Your task to perform on an android device: Search for "apple airpods pro" on bestbuy, select the first entry, and add it to the cart. Image 0: 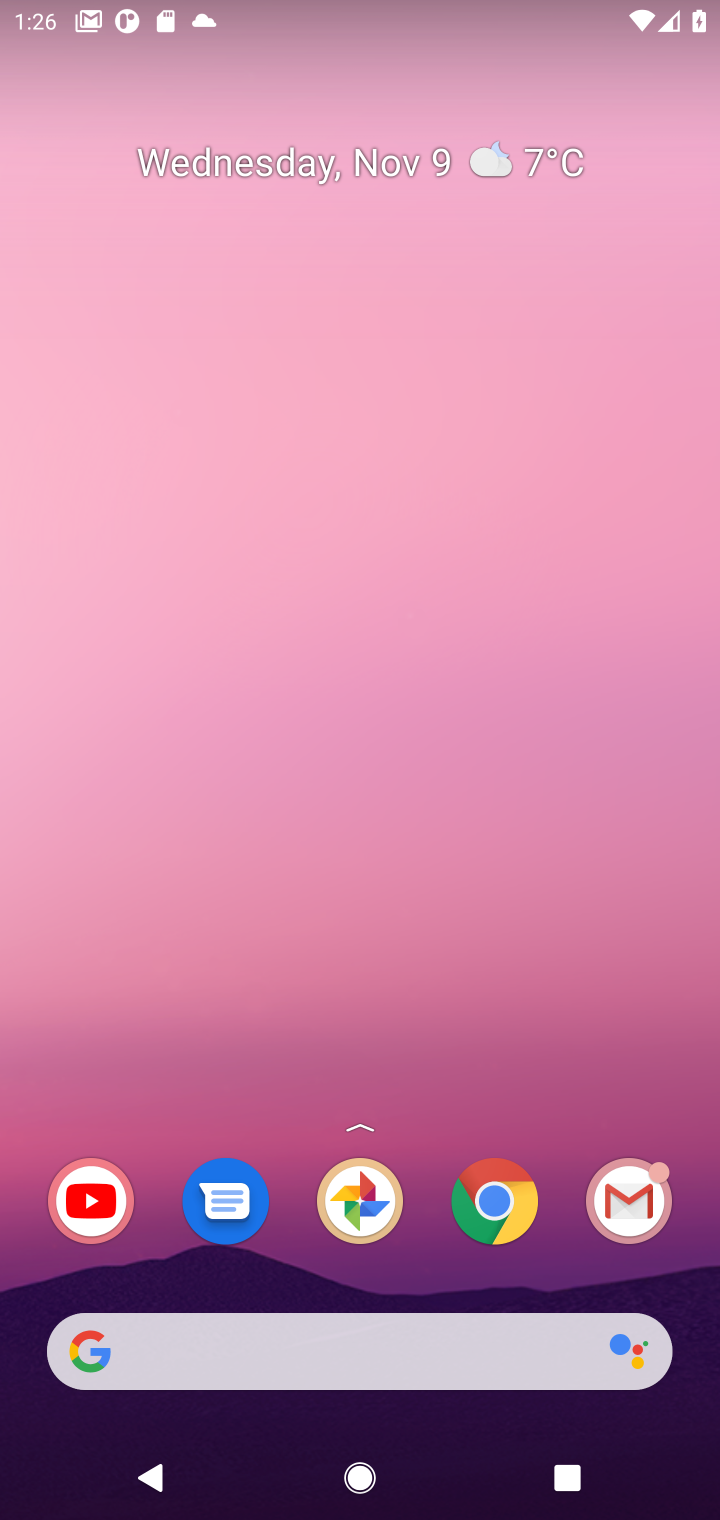
Step 0: click (413, 1348)
Your task to perform on an android device: Search for "apple airpods pro" on bestbuy, select the first entry, and add it to the cart. Image 1: 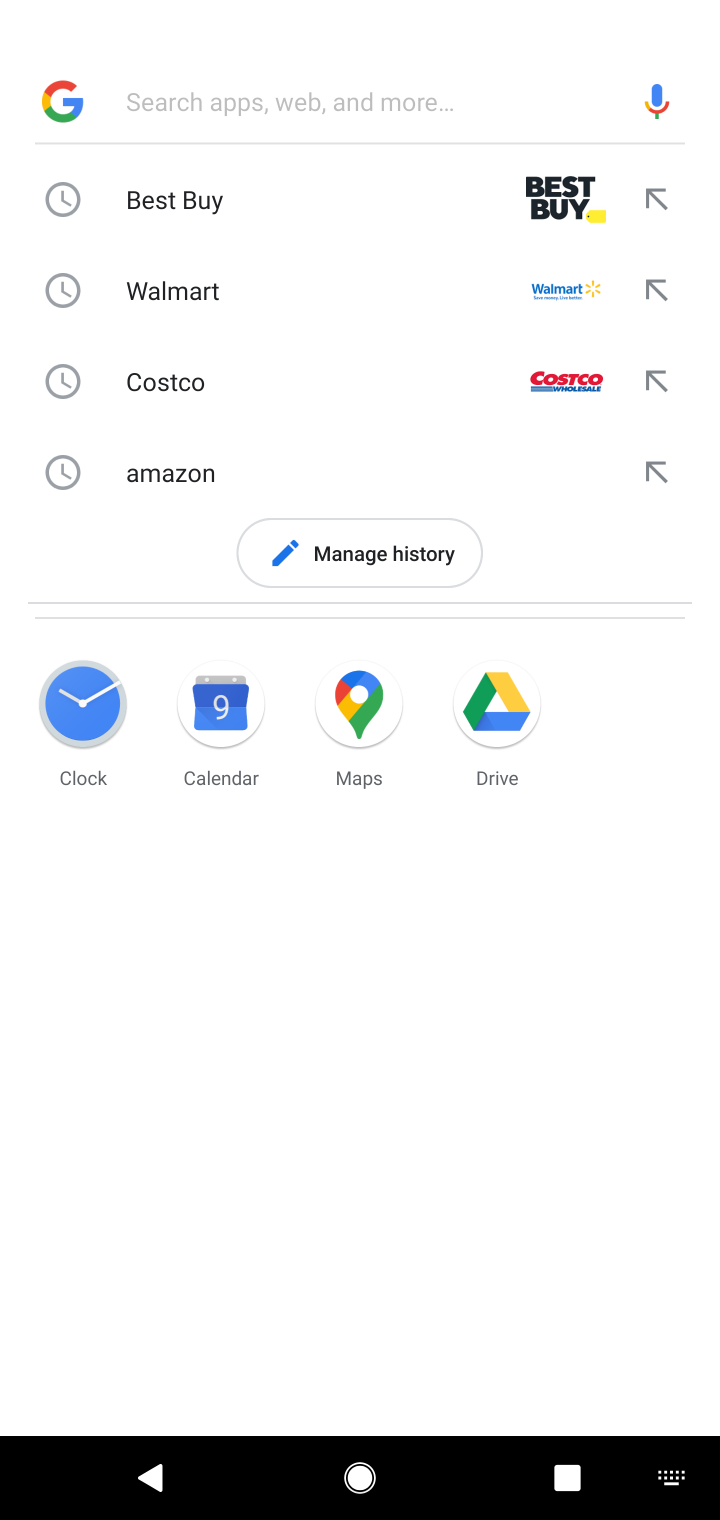
Step 1: type "bestbuy"
Your task to perform on an android device: Search for "apple airpods pro" on bestbuy, select the first entry, and add it to the cart. Image 2: 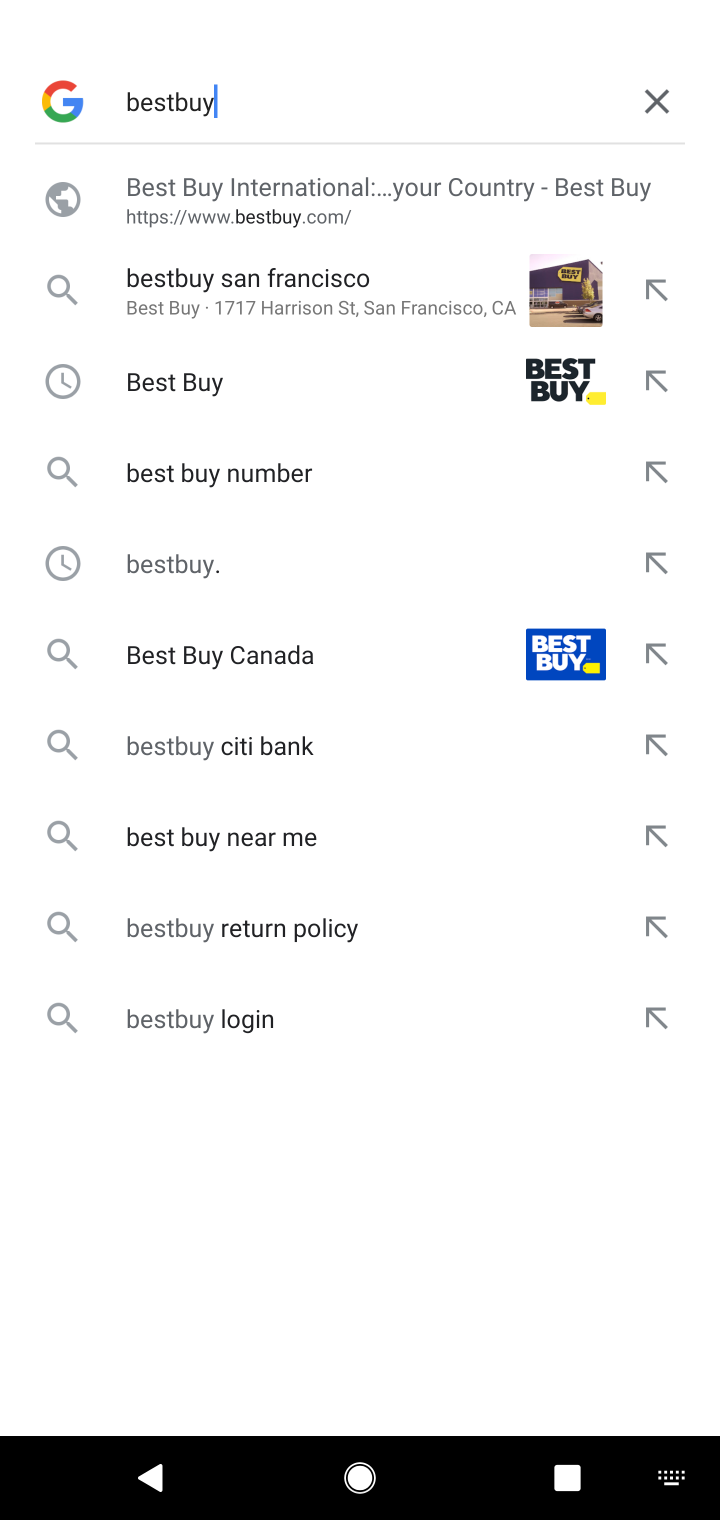
Step 2: click (342, 377)
Your task to perform on an android device: Search for "apple airpods pro" on bestbuy, select the first entry, and add it to the cart. Image 3: 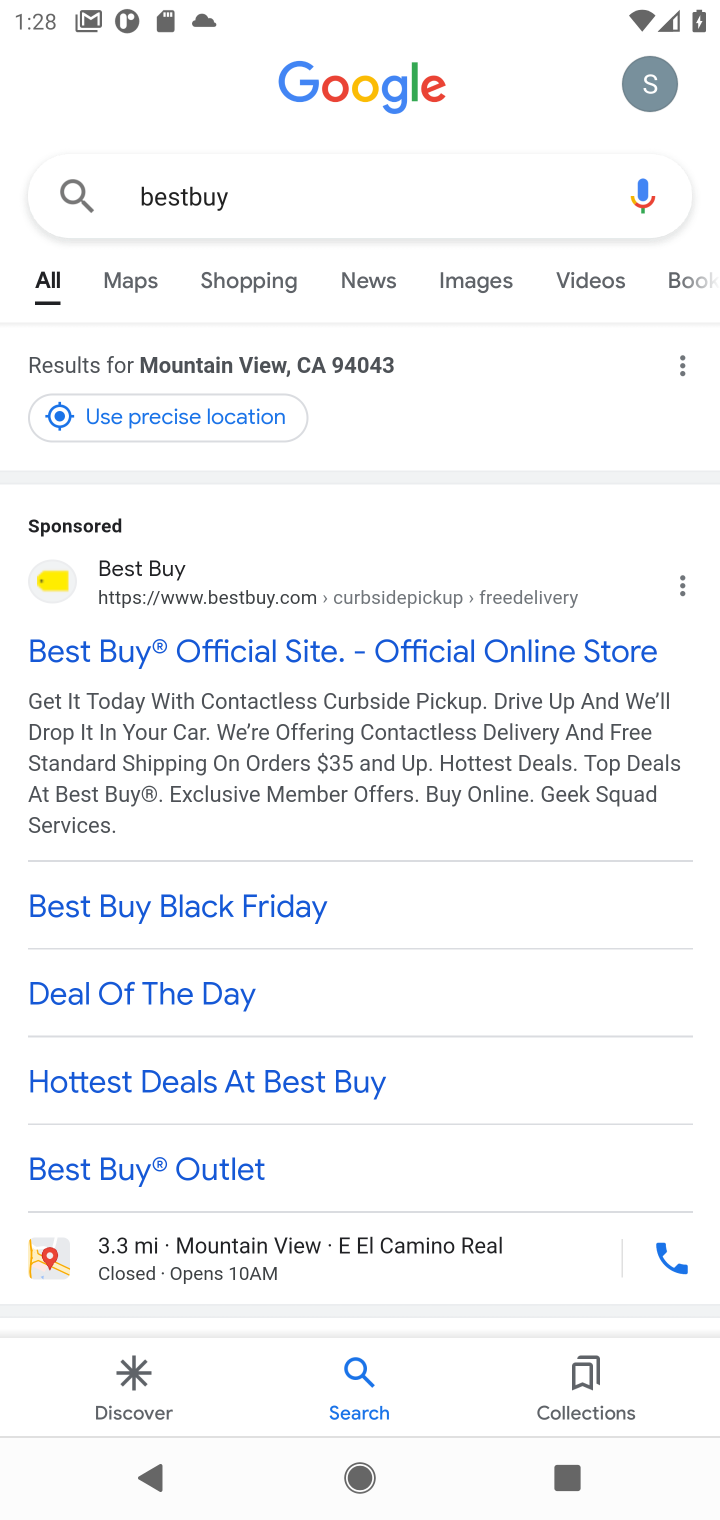
Step 3: click (142, 592)
Your task to perform on an android device: Search for "apple airpods pro" on bestbuy, select the first entry, and add it to the cart. Image 4: 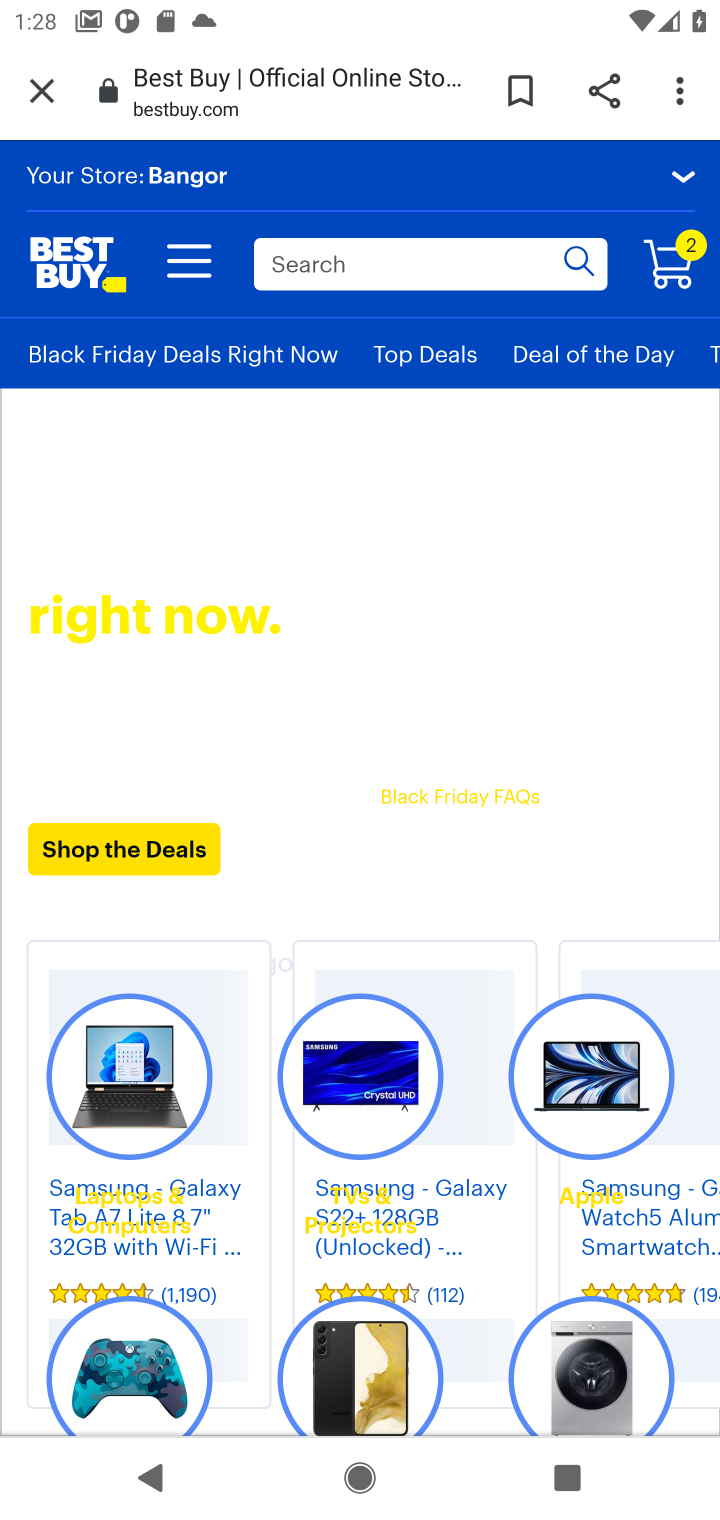
Step 4: click (380, 267)
Your task to perform on an android device: Search for "apple airpods pro" on bestbuy, select the first entry, and add it to the cart. Image 5: 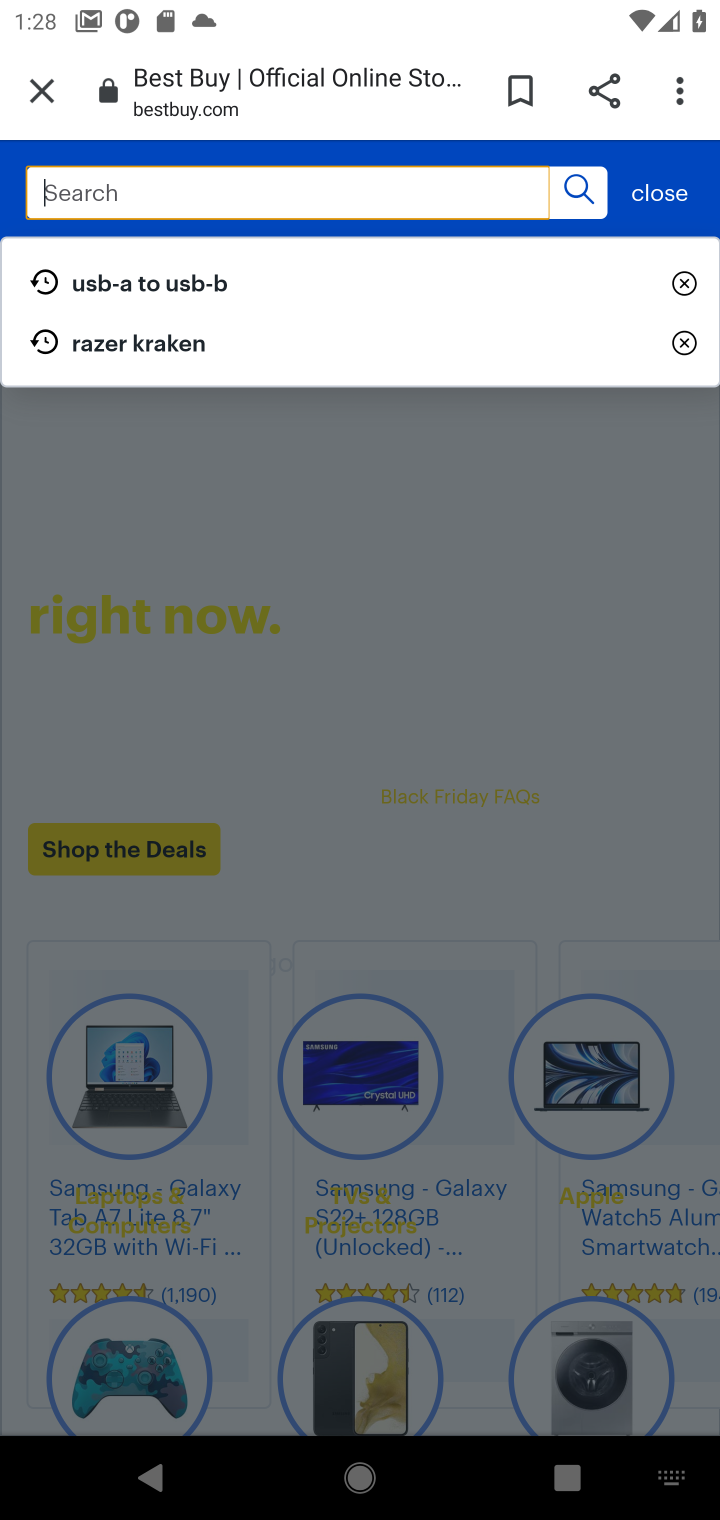
Step 5: type "apple airpods pro"
Your task to perform on an android device: Search for "apple airpods pro" on bestbuy, select the first entry, and add it to the cart. Image 6: 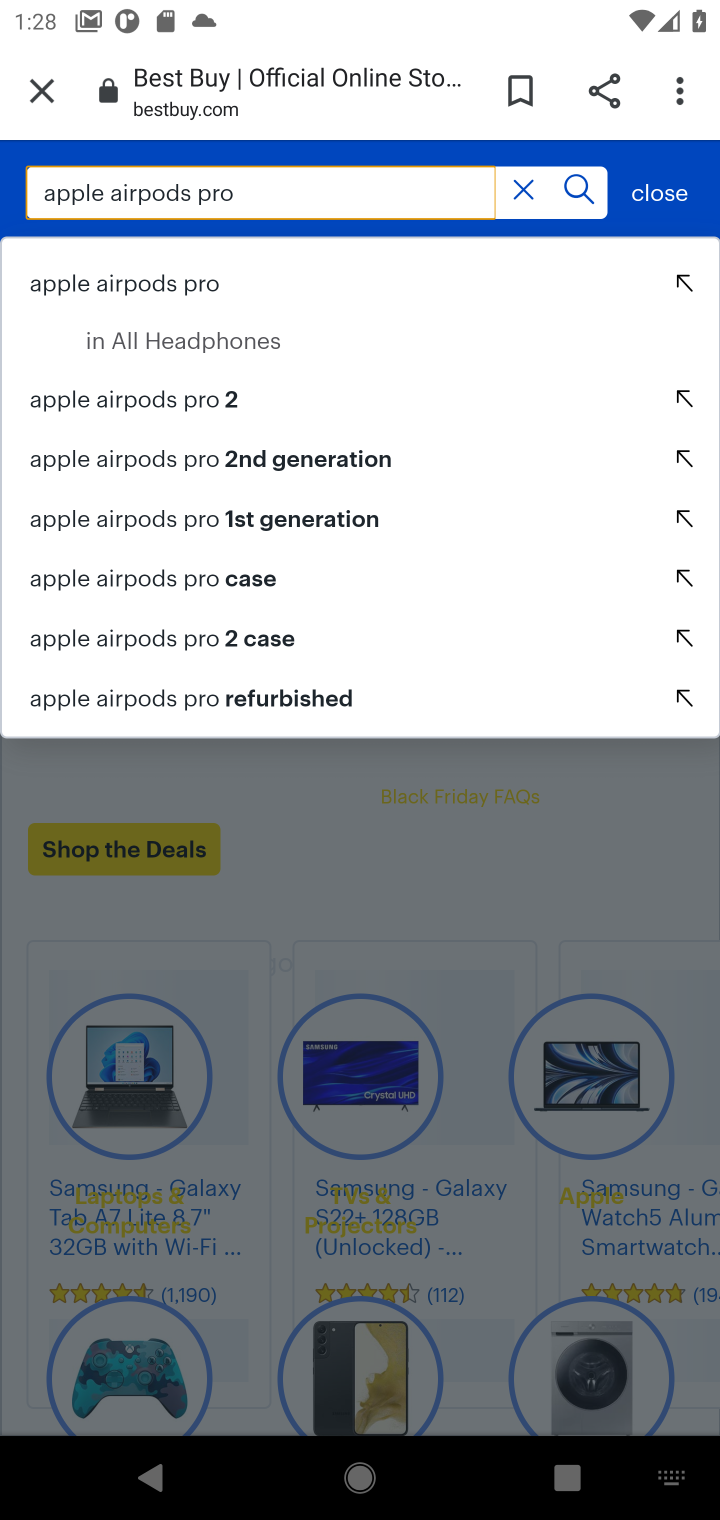
Step 6: click (188, 294)
Your task to perform on an android device: Search for "apple airpods pro" on bestbuy, select the first entry, and add it to the cart. Image 7: 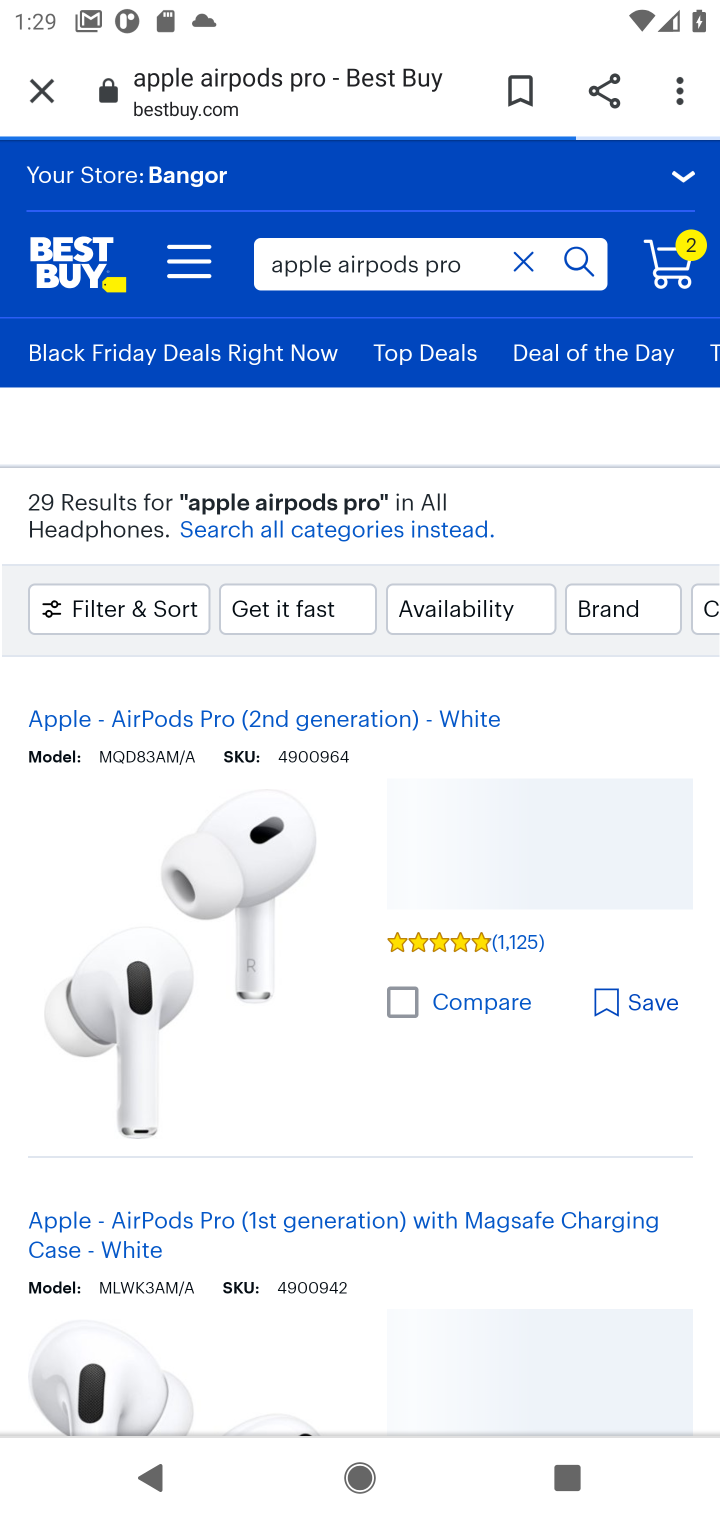
Step 7: click (217, 903)
Your task to perform on an android device: Search for "apple airpods pro" on bestbuy, select the first entry, and add it to the cart. Image 8: 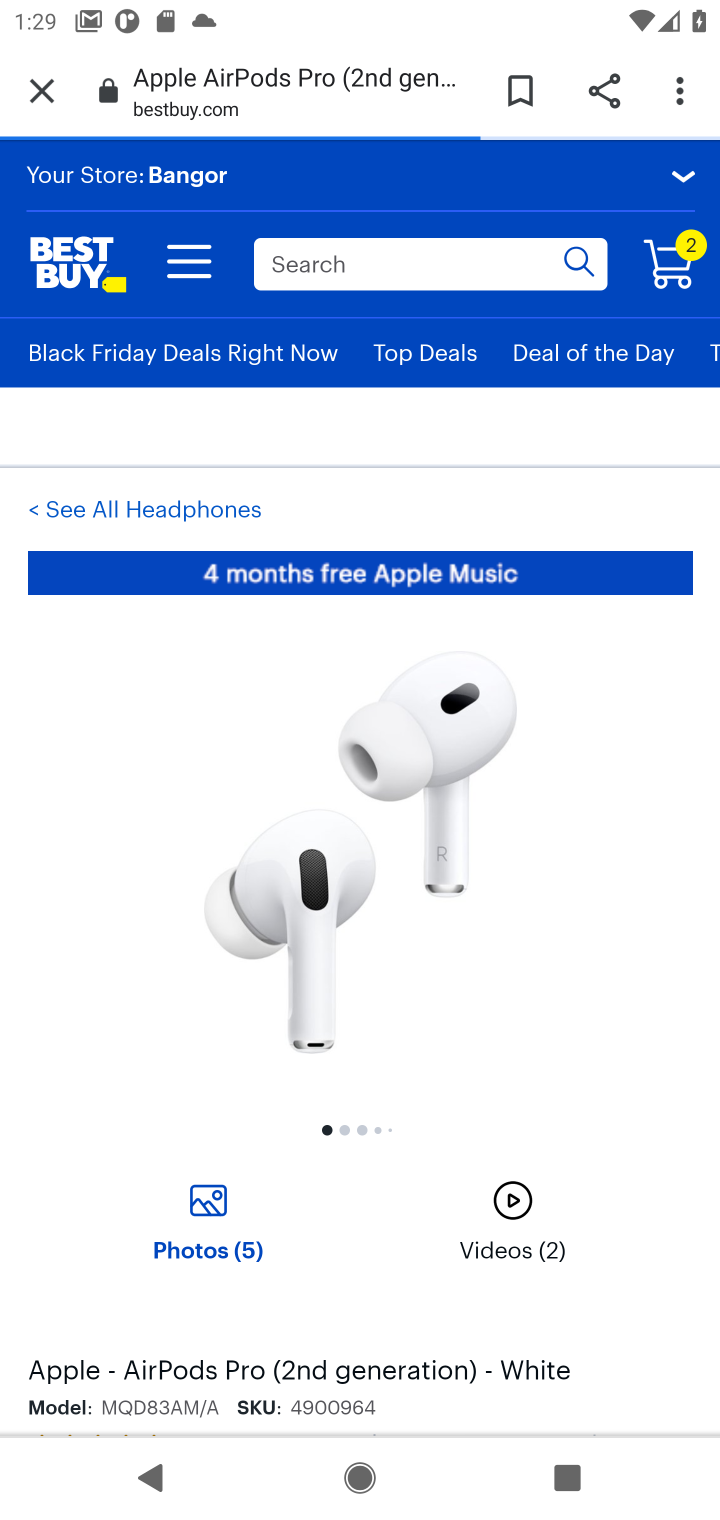
Step 8: drag from (354, 1155) to (371, 763)
Your task to perform on an android device: Search for "apple airpods pro" on bestbuy, select the first entry, and add it to the cart. Image 9: 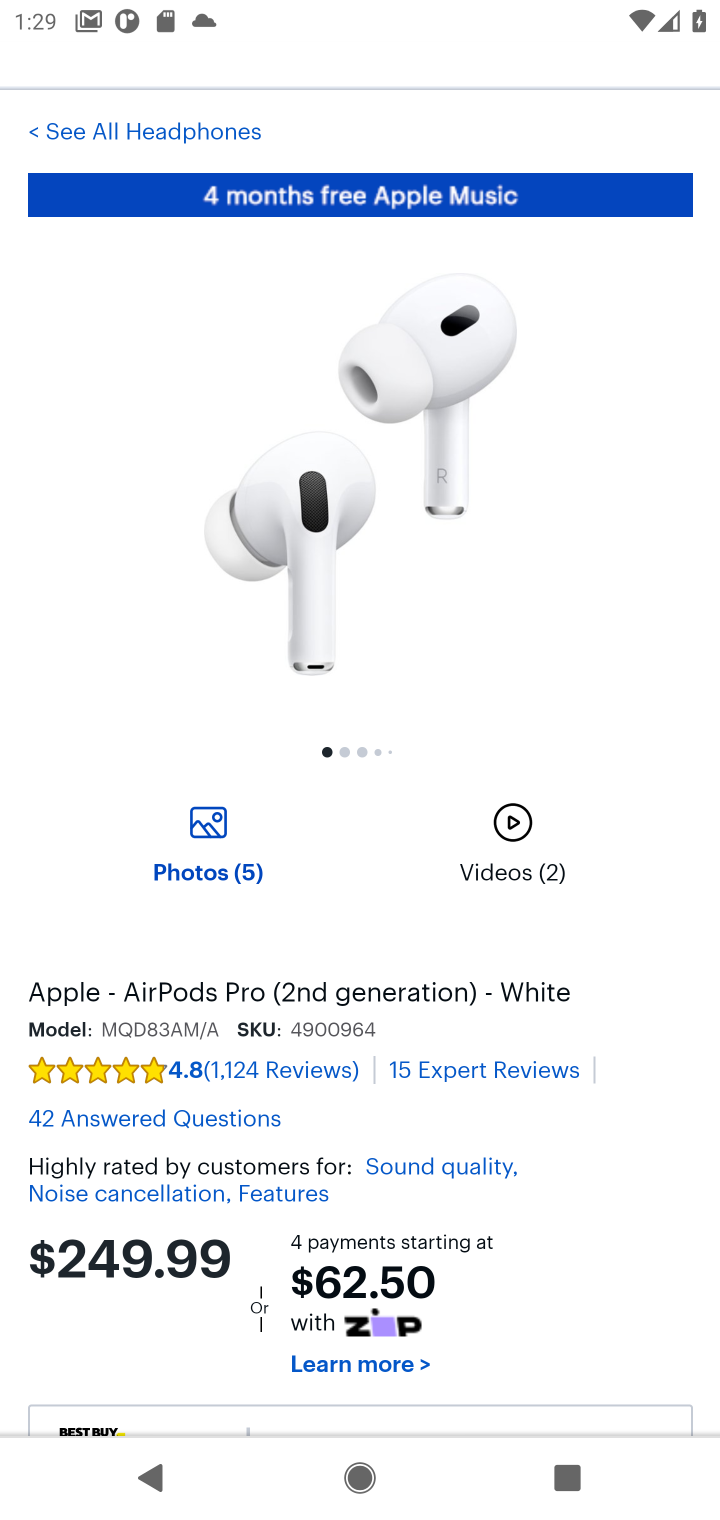
Step 9: drag from (325, 1076) to (324, 795)
Your task to perform on an android device: Search for "apple airpods pro" on bestbuy, select the first entry, and add it to the cart. Image 10: 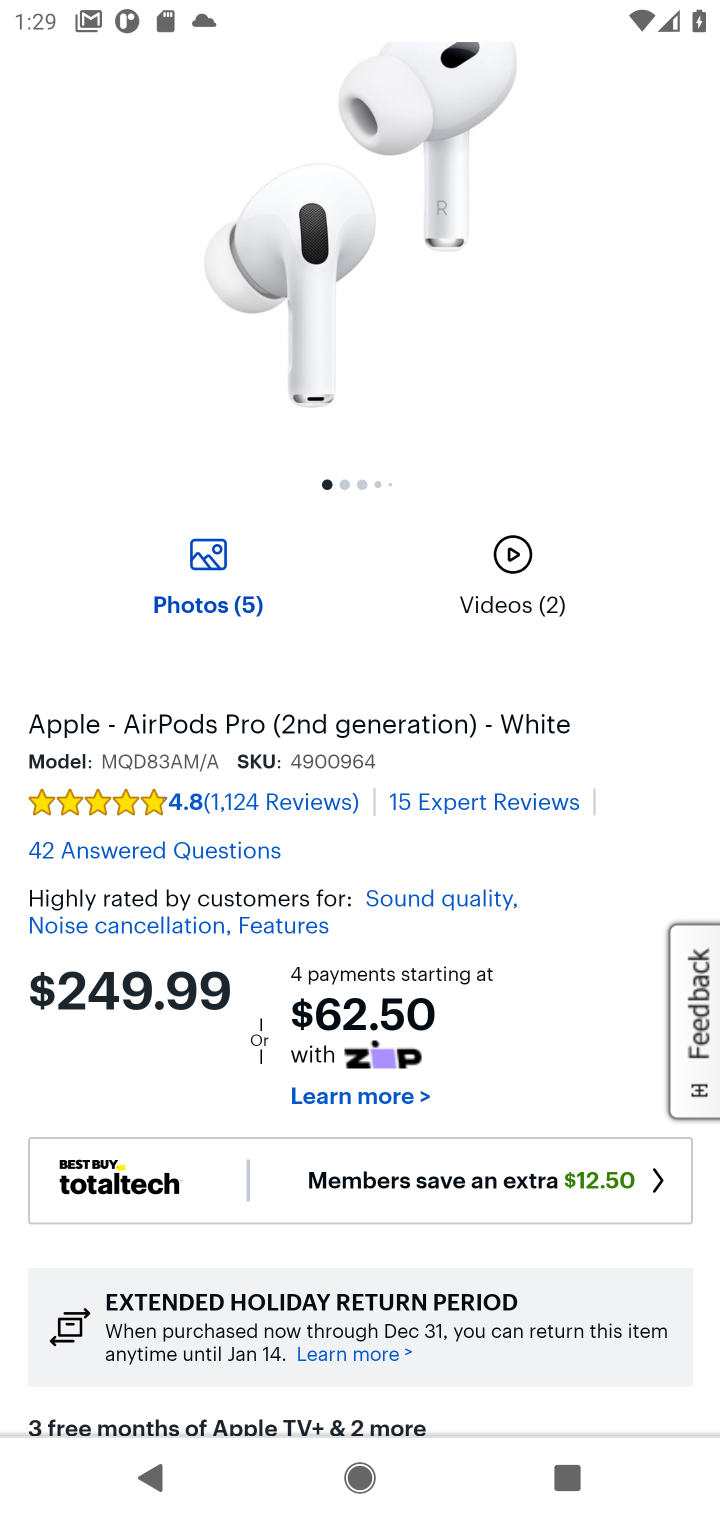
Step 10: drag from (525, 983) to (448, 596)
Your task to perform on an android device: Search for "apple airpods pro" on bestbuy, select the first entry, and add it to the cart. Image 11: 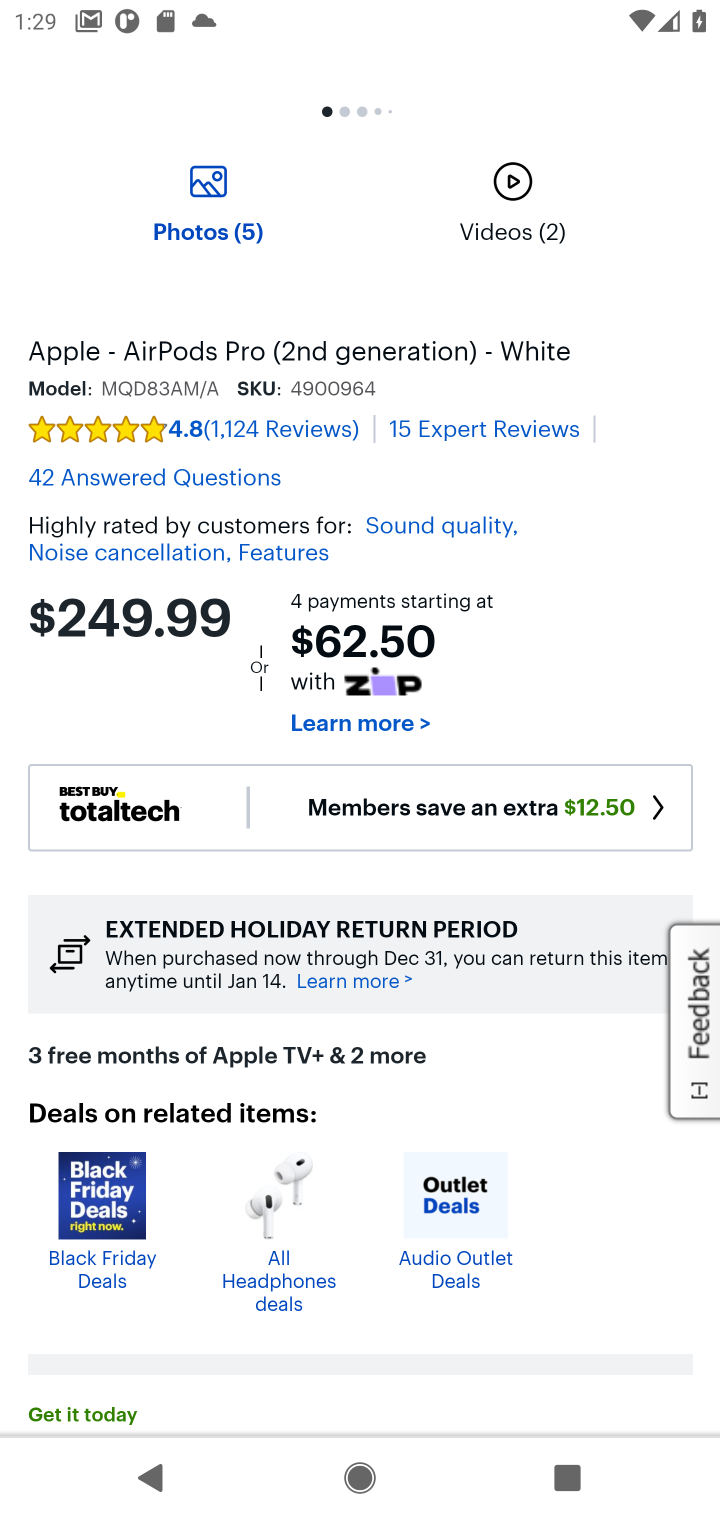
Step 11: drag from (512, 681) to (502, 382)
Your task to perform on an android device: Search for "apple airpods pro" on bestbuy, select the first entry, and add it to the cart. Image 12: 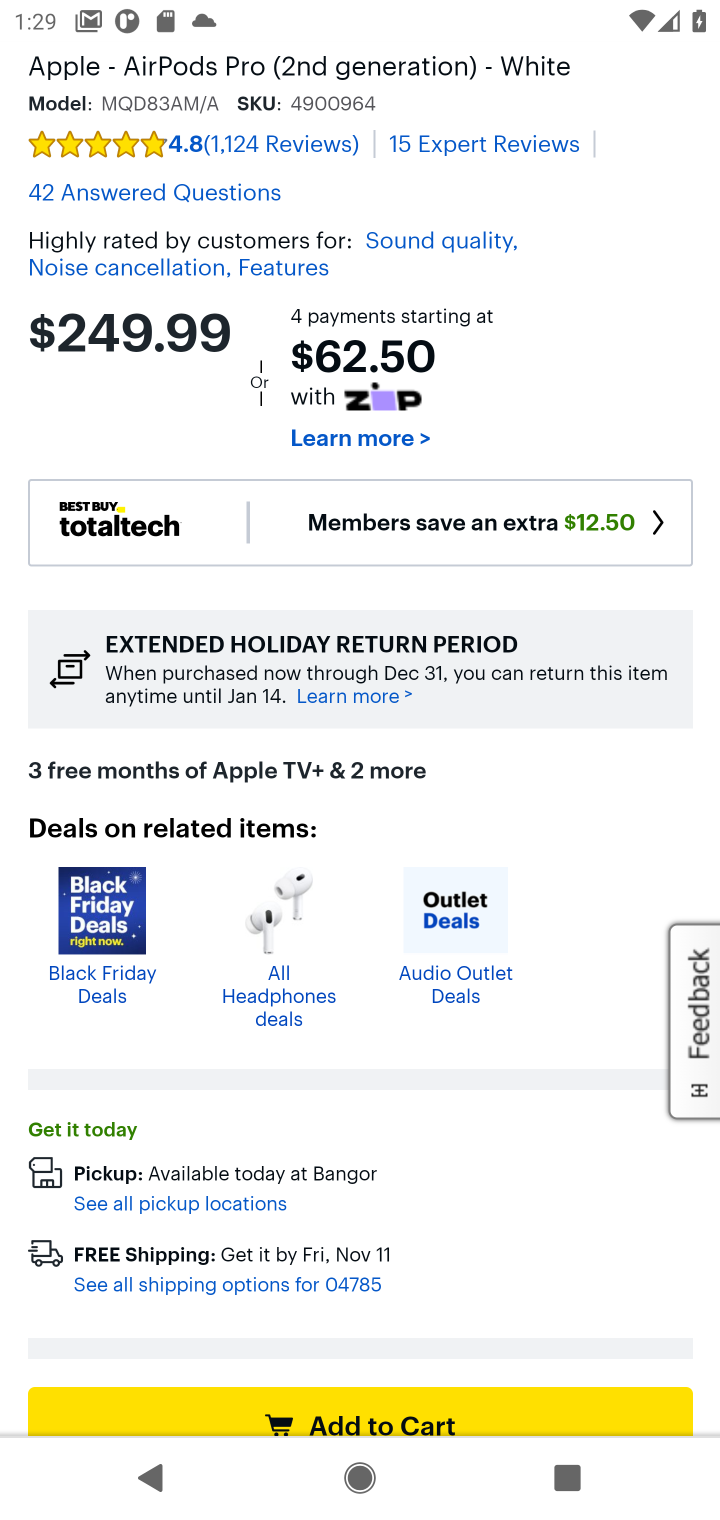
Step 12: click (473, 1050)
Your task to perform on an android device: Search for "apple airpods pro" on bestbuy, select the first entry, and add it to the cart. Image 13: 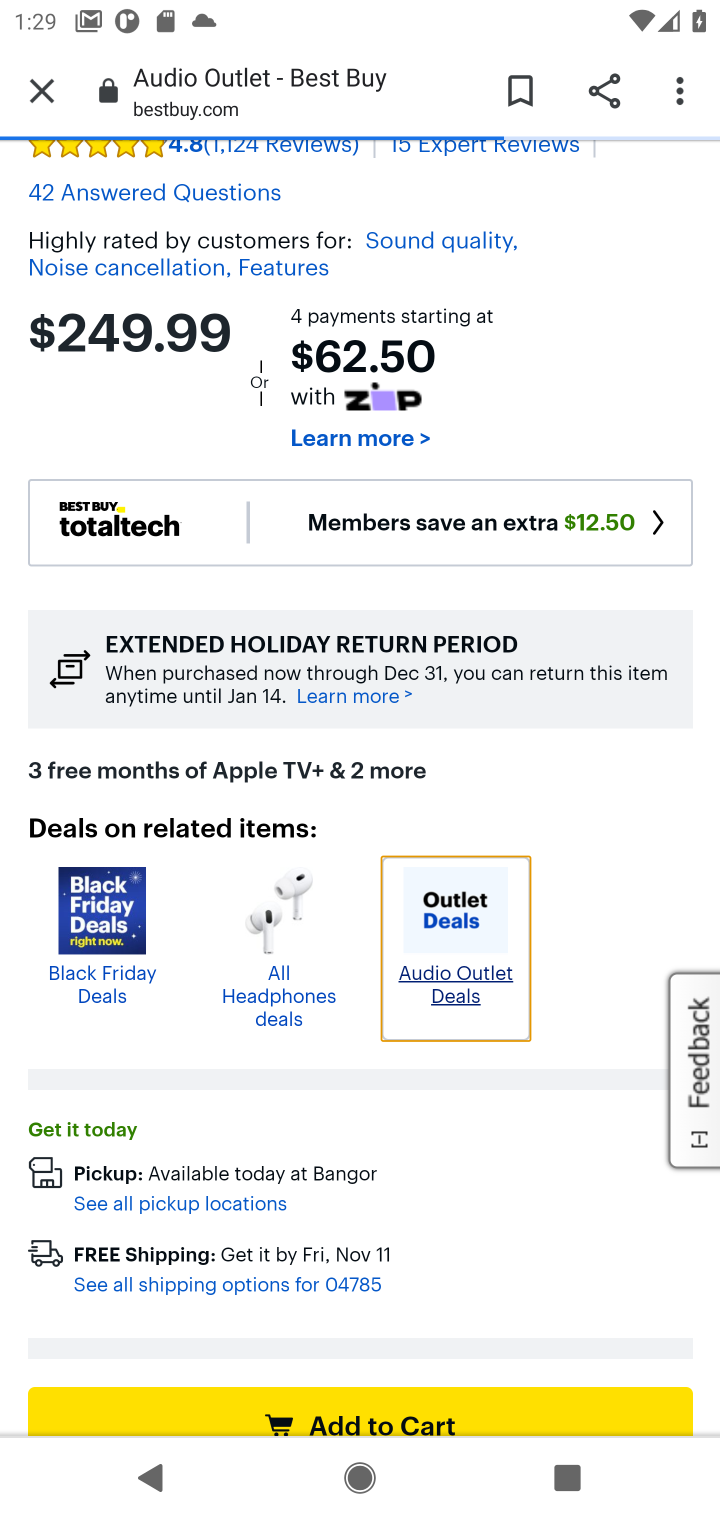
Step 13: click (355, 1405)
Your task to perform on an android device: Search for "apple airpods pro" on bestbuy, select the first entry, and add it to the cart. Image 14: 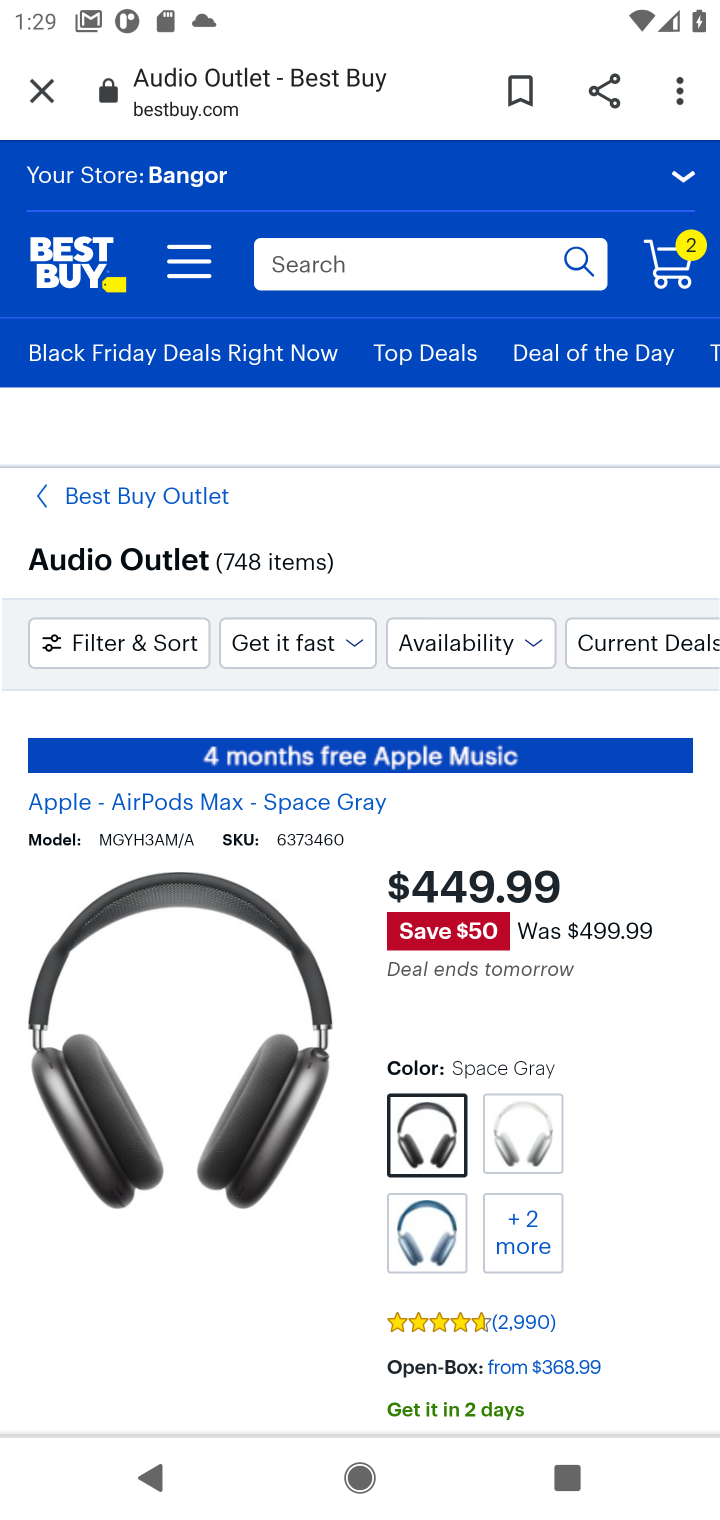
Step 14: drag from (588, 1132) to (588, 832)
Your task to perform on an android device: Search for "apple airpods pro" on bestbuy, select the first entry, and add it to the cart. Image 15: 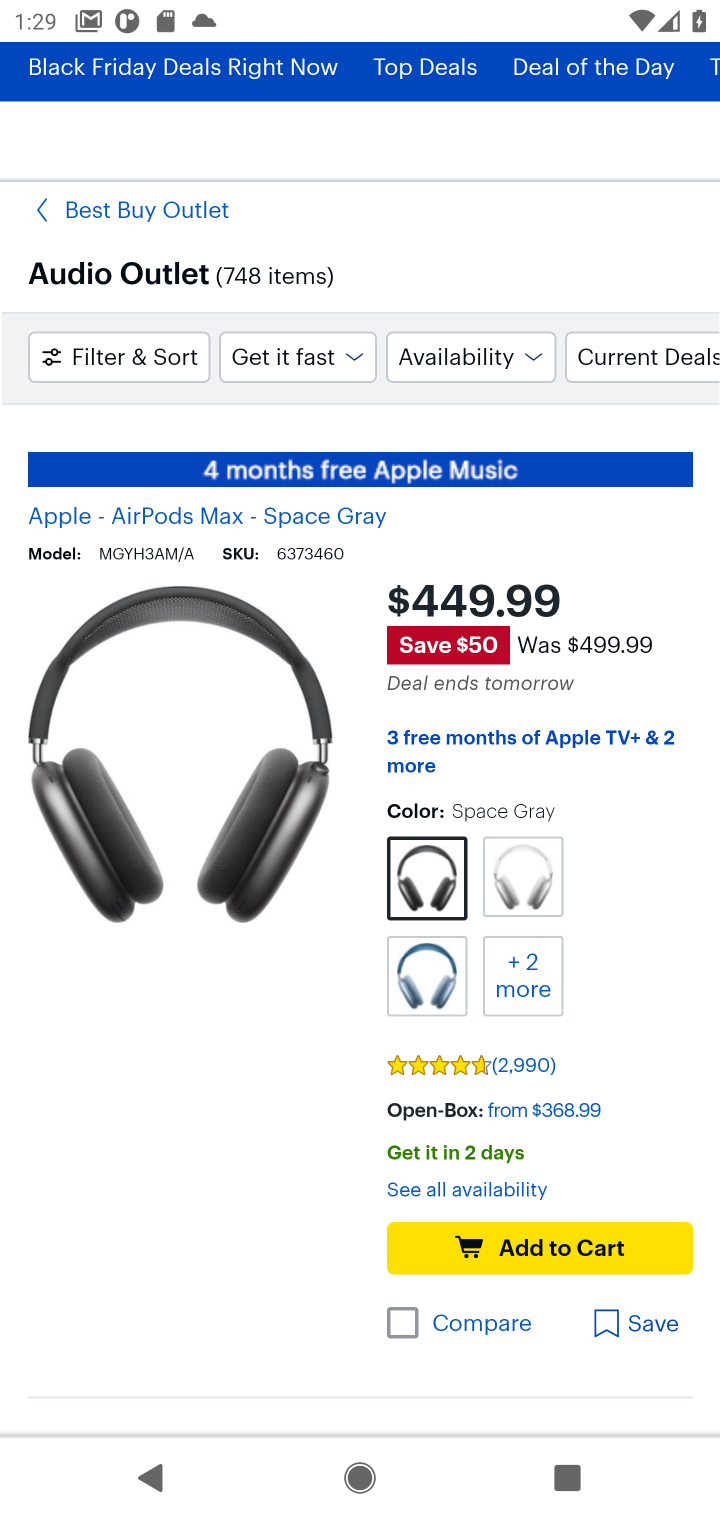
Step 15: click (519, 1247)
Your task to perform on an android device: Search for "apple airpods pro" on bestbuy, select the first entry, and add it to the cart. Image 16: 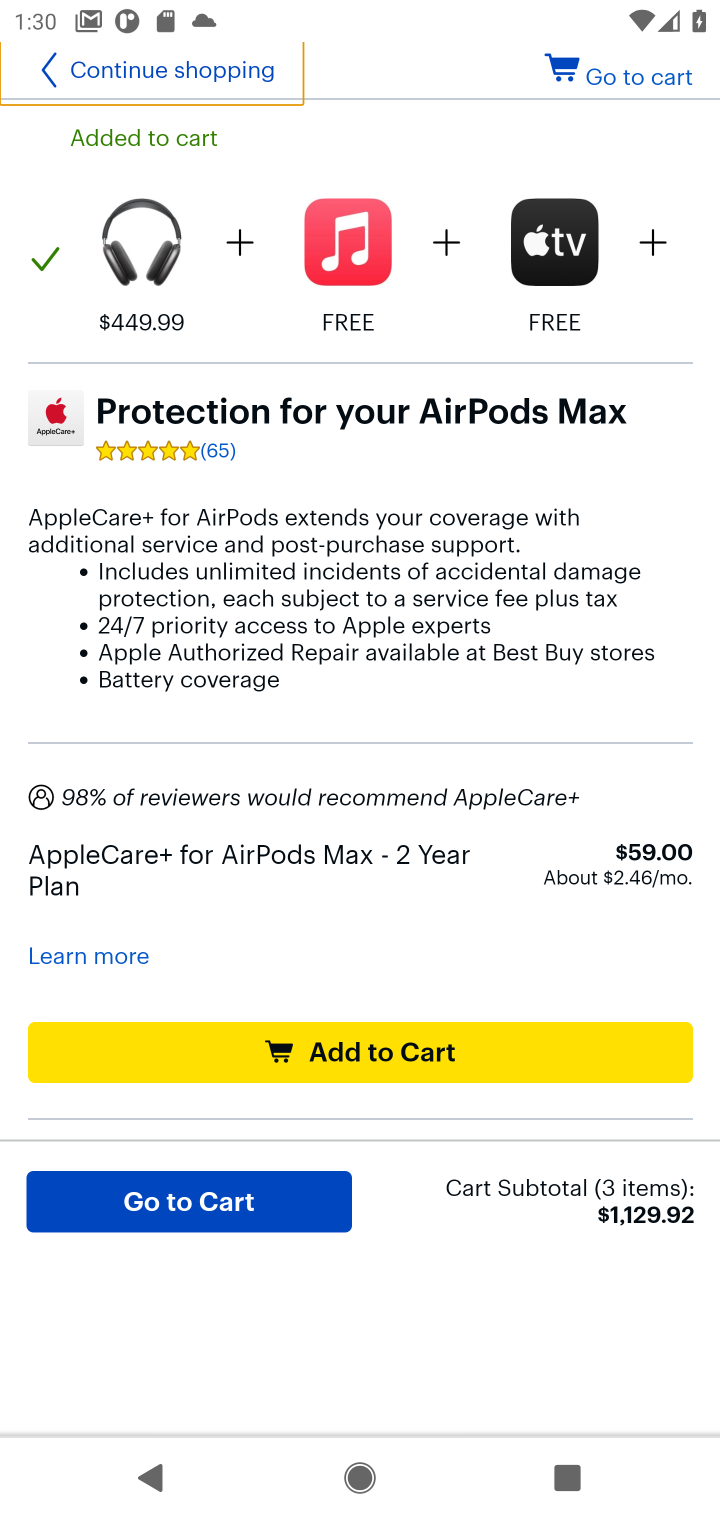
Step 16: click (346, 1047)
Your task to perform on an android device: Search for "apple airpods pro" on bestbuy, select the first entry, and add it to the cart. Image 17: 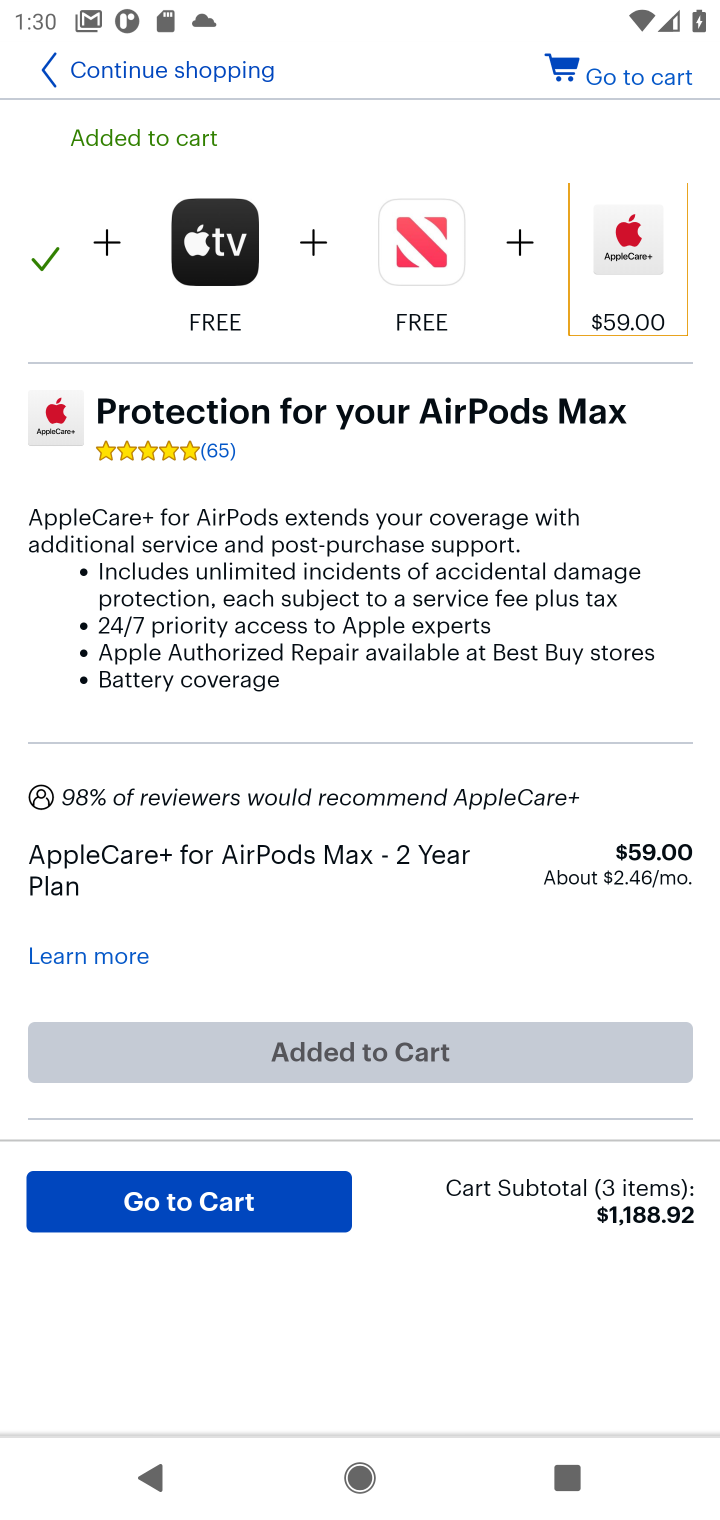
Step 17: task complete